Your task to perform on an android device: Open wifi settings Image 0: 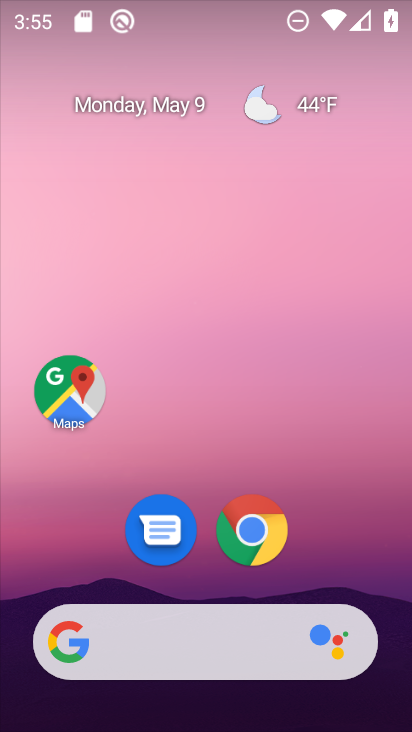
Step 0: press home button
Your task to perform on an android device: Open wifi settings Image 1: 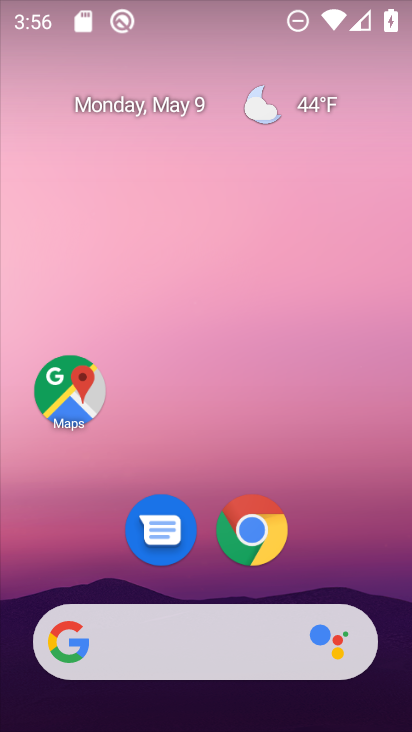
Step 1: drag from (206, 570) to (199, 81)
Your task to perform on an android device: Open wifi settings Image 2: 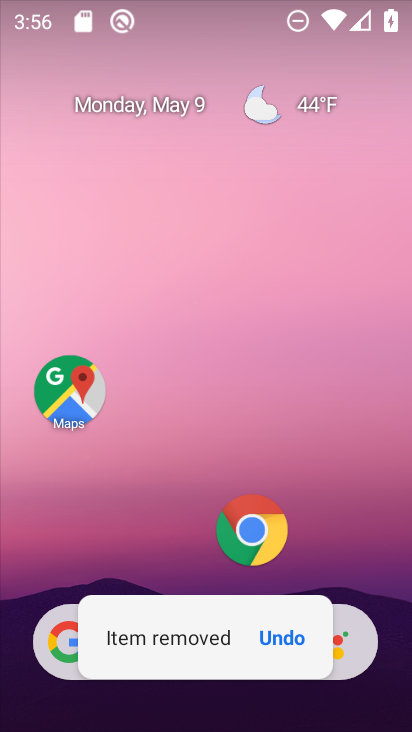
Step 2: click (287, 643)
Your task to perform on an android device: Open wifi settings Image 3: 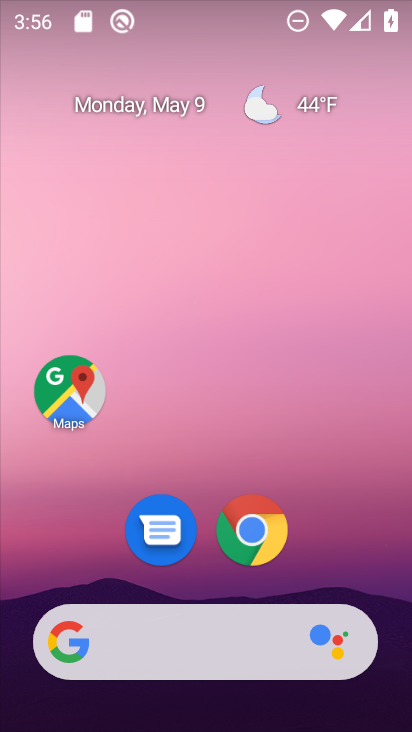
Step 3: drag from (349, 422) to (326, 2)
Your task to perform on an android device: Open wifi settings Image 4: 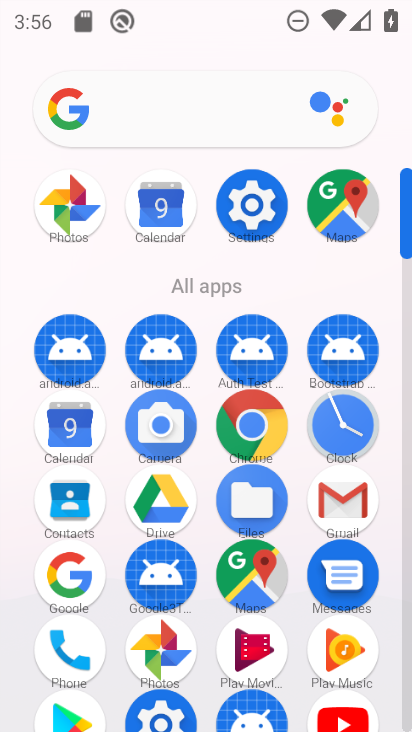
Step 4: drag from (327, 431) to (324, 117)
Your task to perform on an android device: Open wifi settings Image 5: 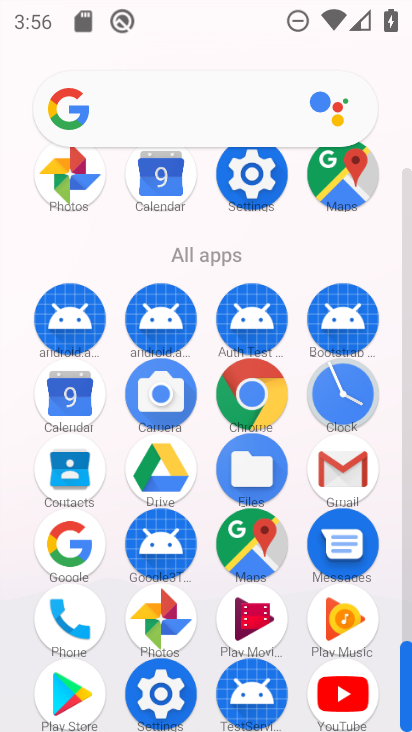
Step 5: click (251, 173)
Your task to perform on an android device: Open wifi settings Image 6: 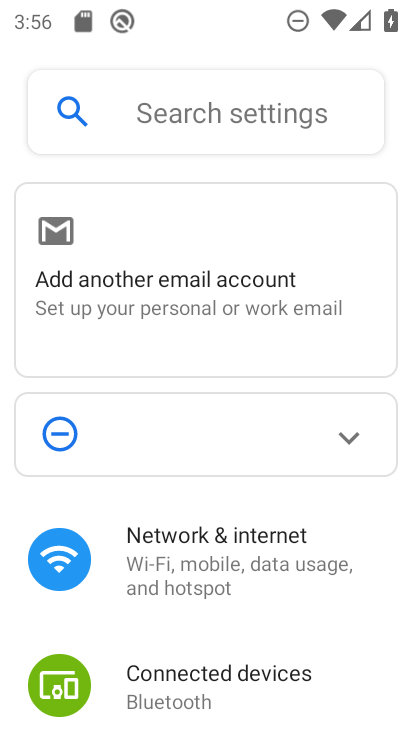
Step 6: click (109, 557)
Your task to perform on an android device: Open wifi settings Image 7: 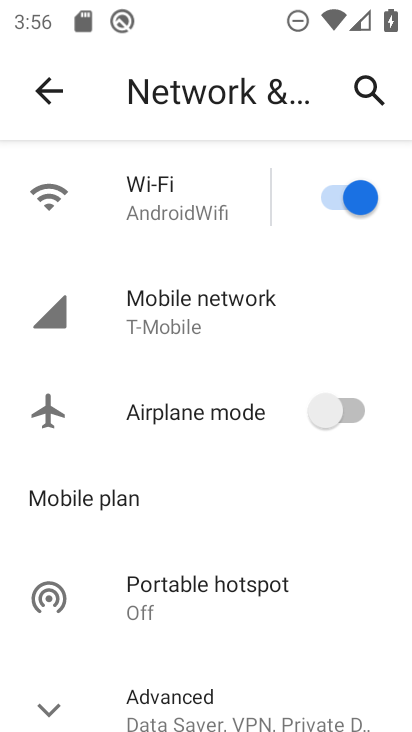
Step 7: click (177, 168)
Your task to perform on an android device: Open wifi settings Image 8: 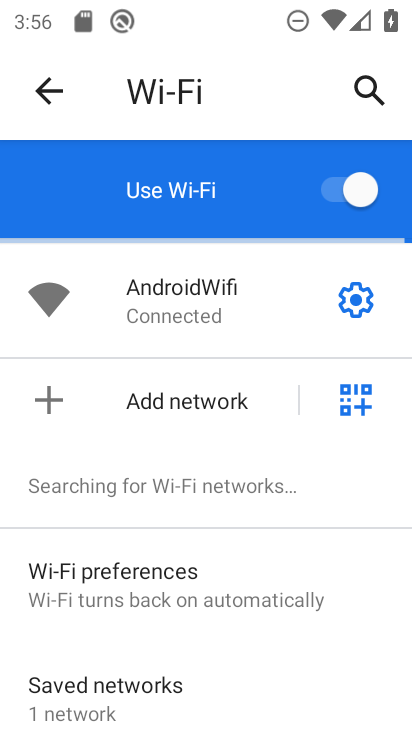
Step 8: task complete